Your task to perform on an android device: open app "Chime – Mobile Banking" (install if not already installed) Image 0: 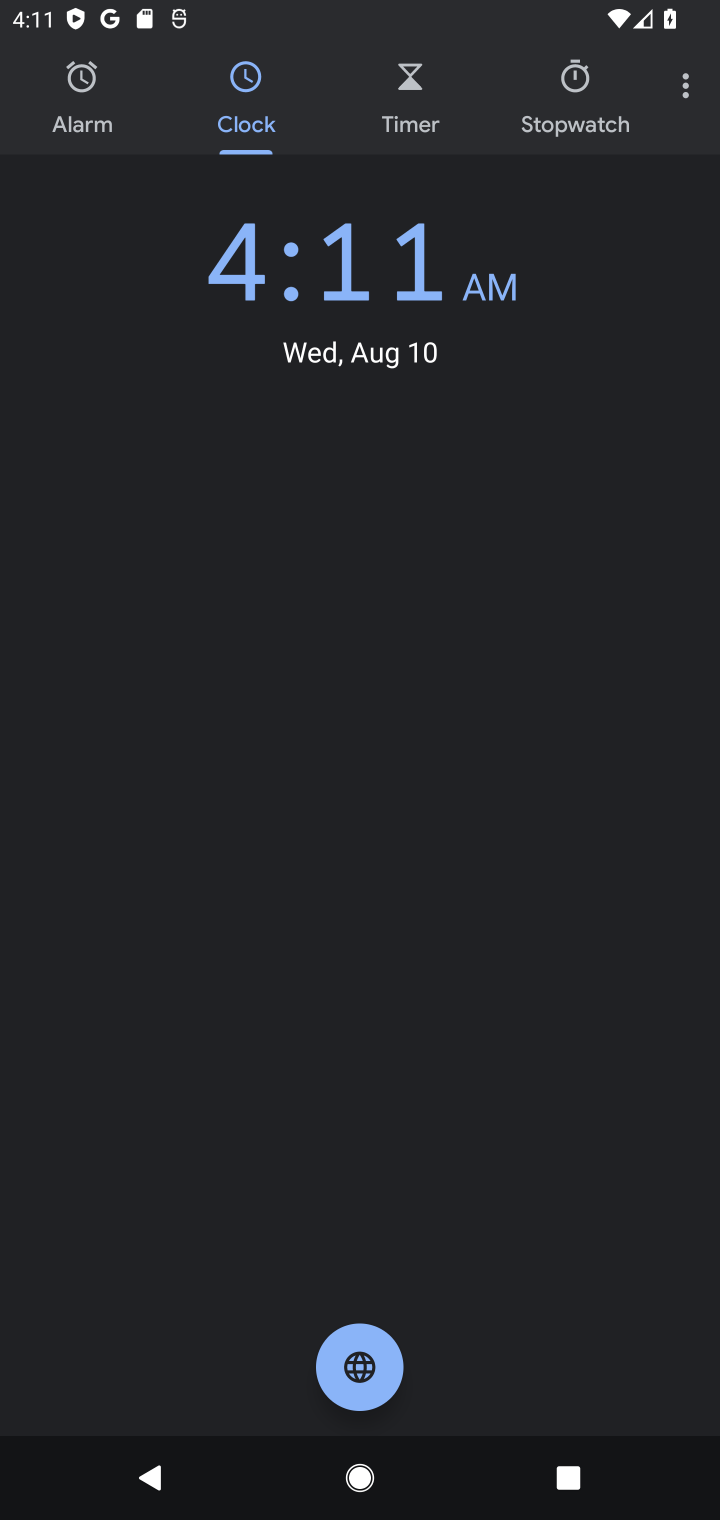
Step 0: press home button
Your task to perform on an android device: open app "Chime – Mobile Banking" (install if not already installed) Image 1: 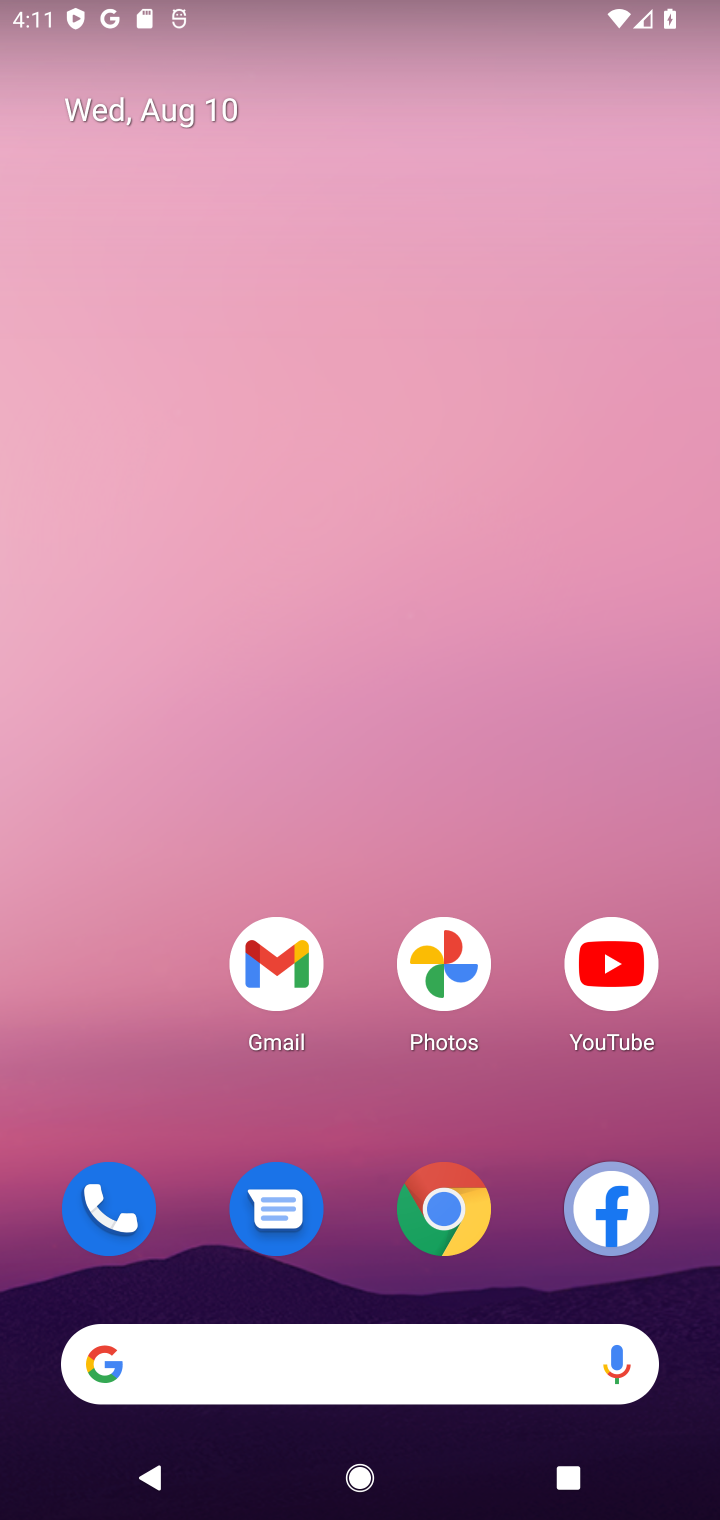
Step 1: drag from (313, 1307) to (304, 174)
Your task to perform on an android device: open app "Chime – Mobile Banking" (install if not already installed) Image 2: 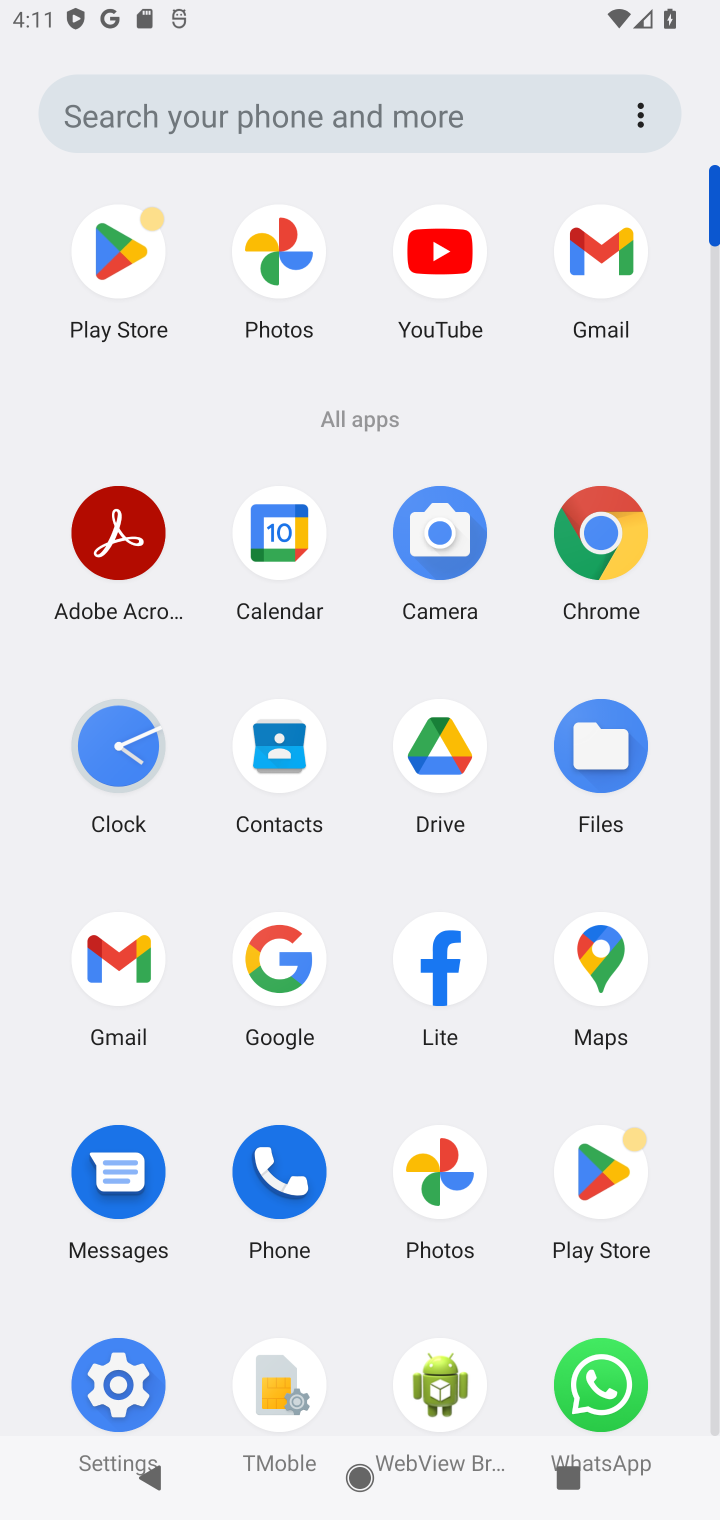
Step 2: click (233, 139)
Your task to perform on an android device: open app "Chime – Mobile Banking" (install if not already installed) Image 3: 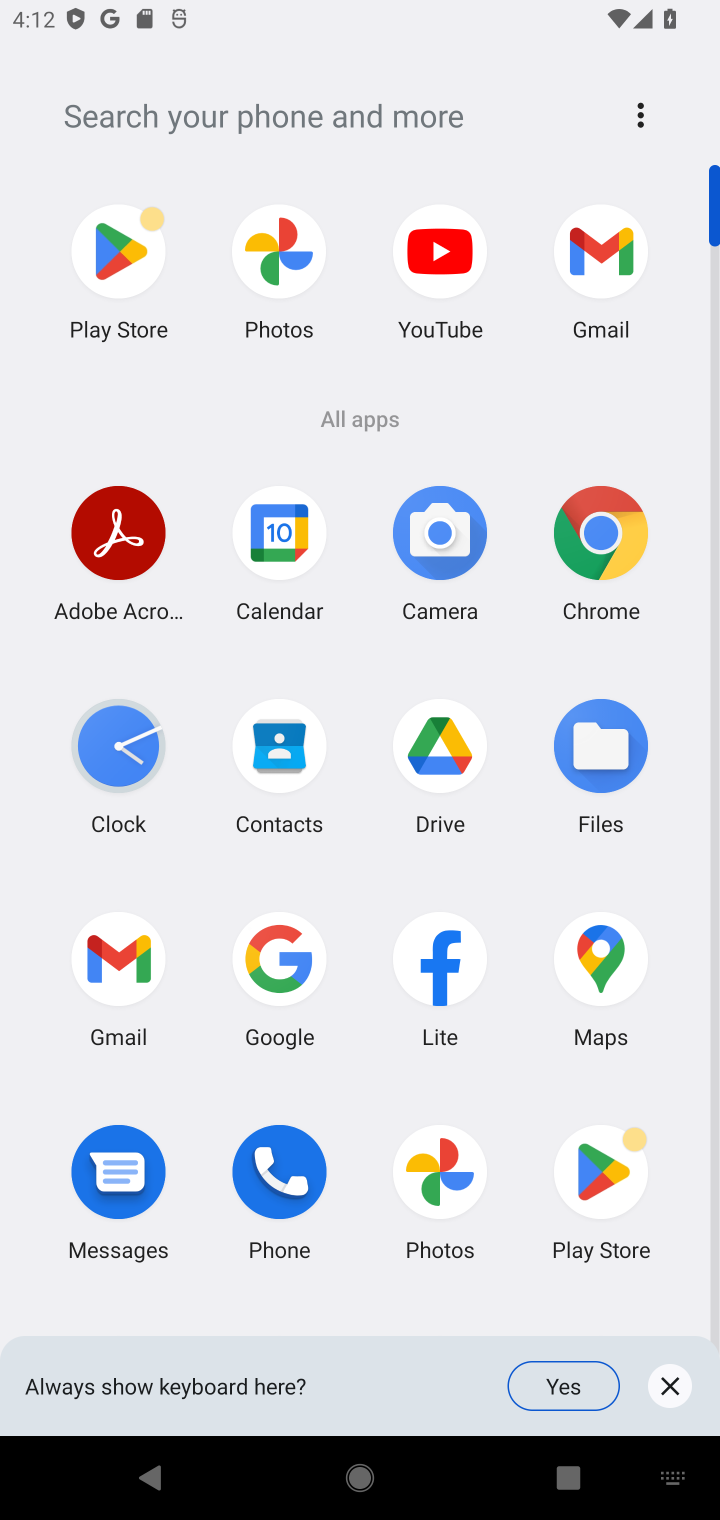
Step 3: click (111, 272)
Your task to perform on an android device: open app "Chime – Mobile Banking" (install if not already installed) Image 4: 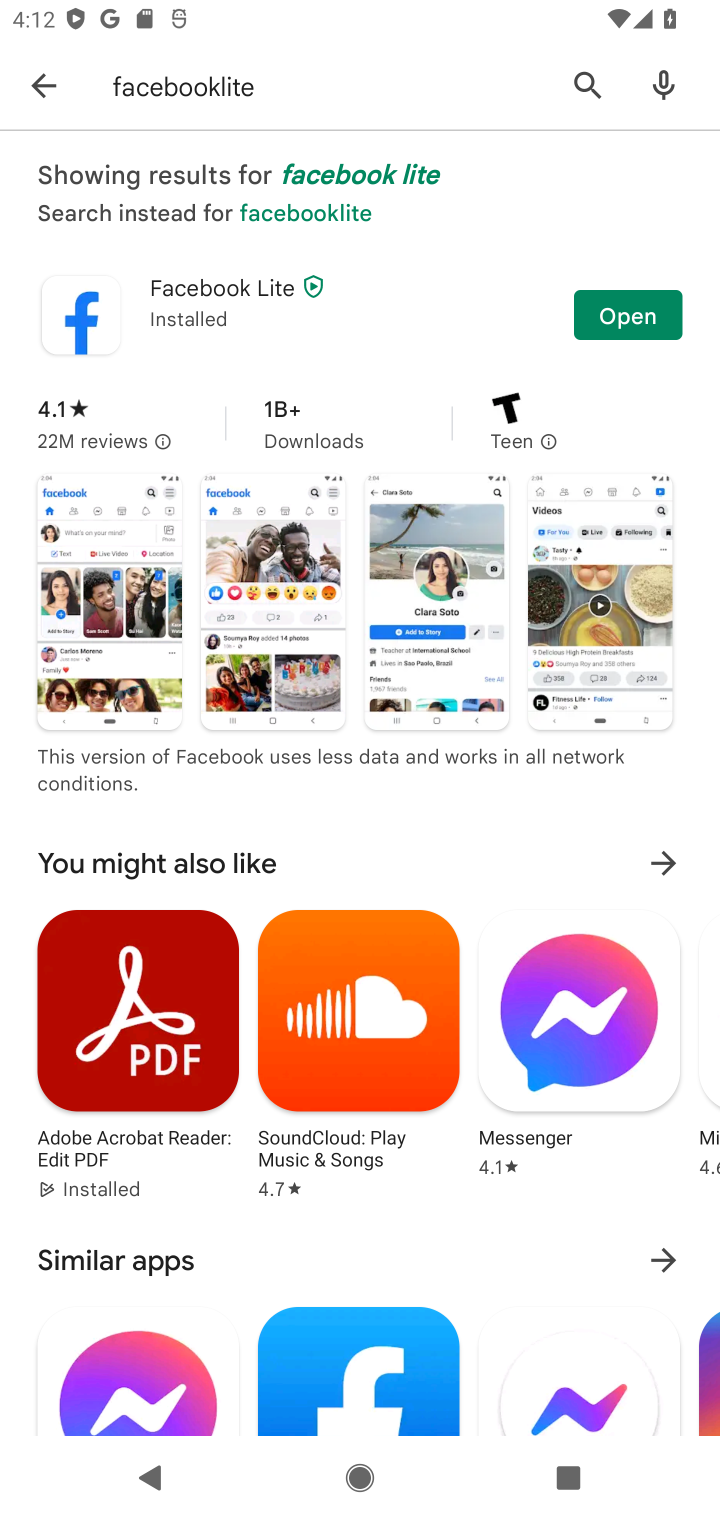
Step 4: click (578, 87)
Your task to perform on an android device: open app "Chime – Mobile Banking" (install if not already installed) Image 5: 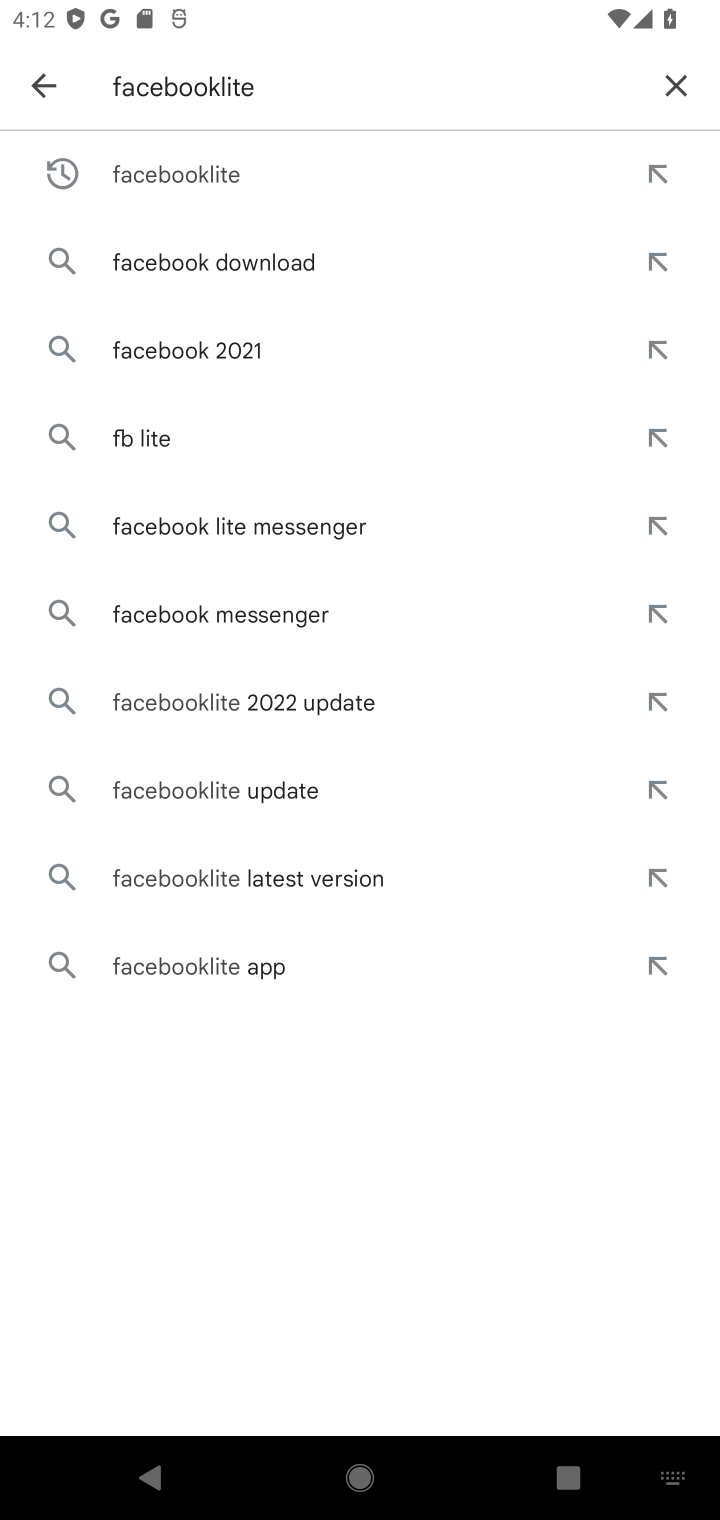
Step 5: click (656, 87)
Your task to perform on an android device: open app "Chime – Mobile Banking" (install if not already installed) Image 6: 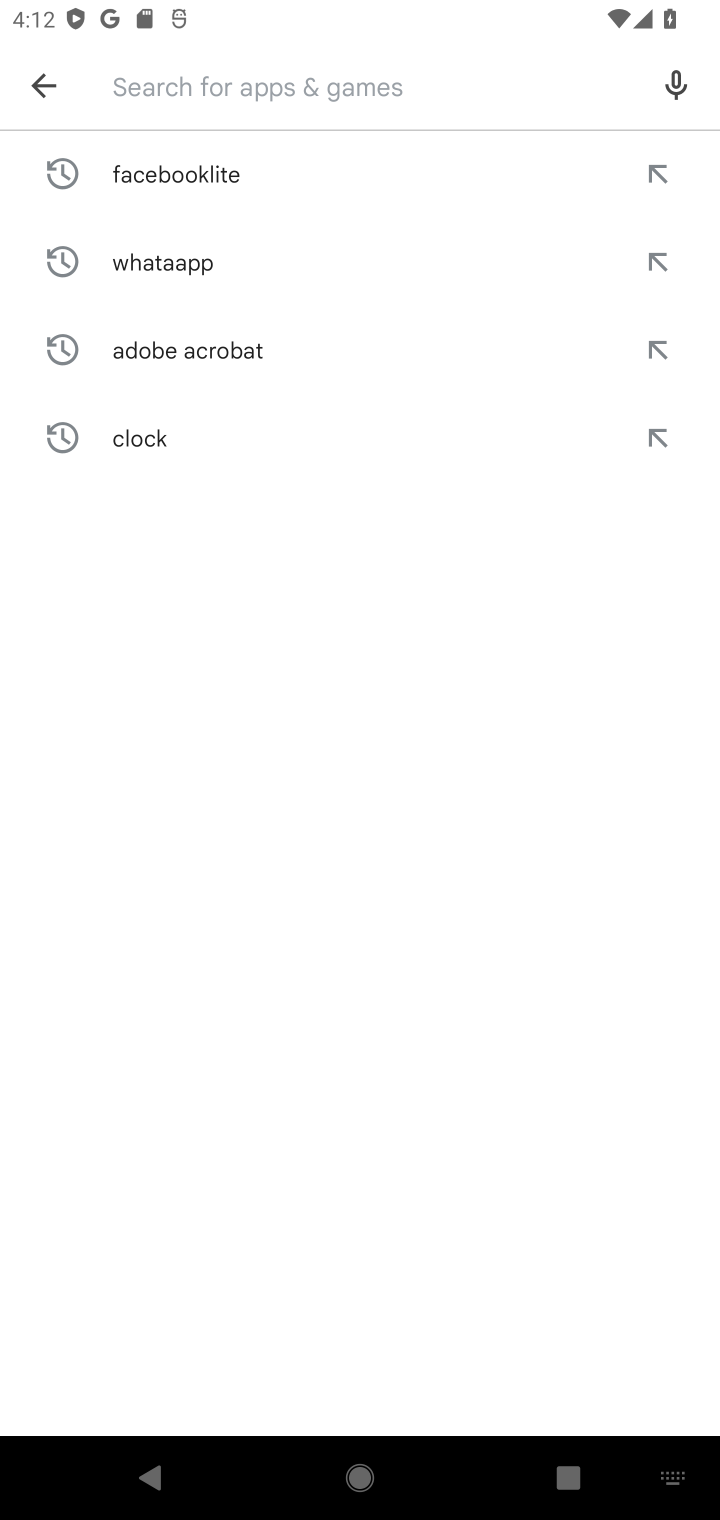
Step 6: type "chime"
Your task to perform on an android device: open app "Chime – Mobile Banking" (install if not already installed) Image 7: 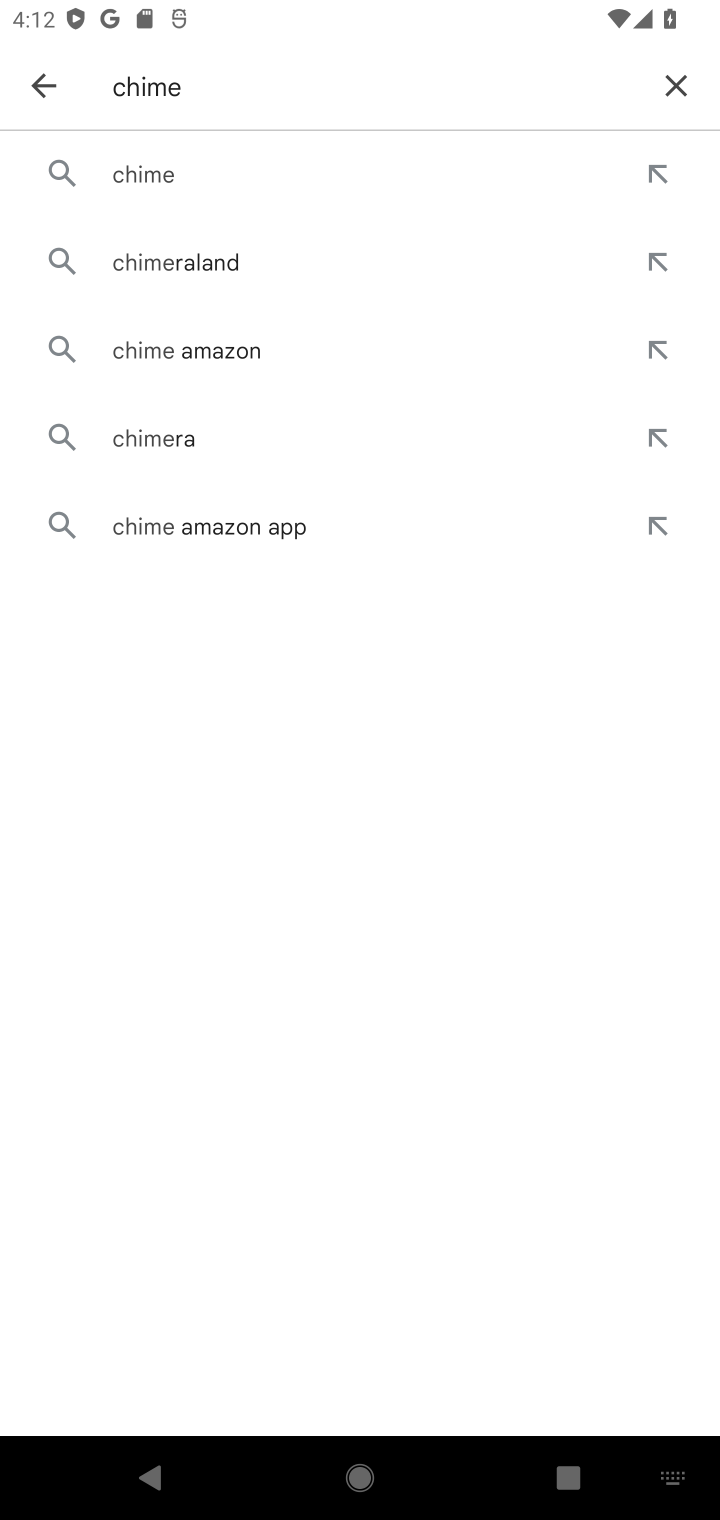
Step 7: click (259, 174)
Your task to perform on an android device: open app "Chime – Mobile Banking" (install if not already installed) Image 8: 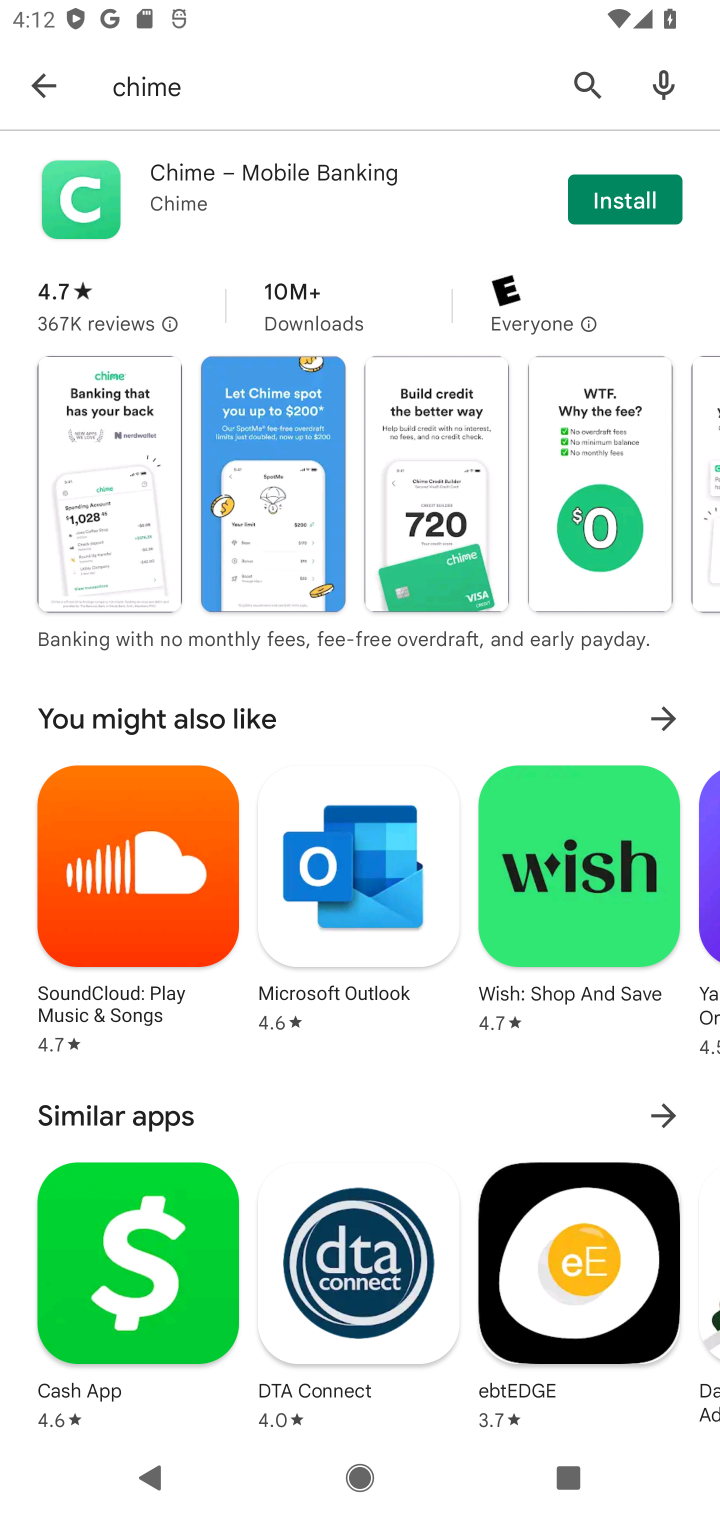
Step 8: click (622, 230)
Your task to perform on an android device: open app "Chime – Mobile Banking" (install if not already installed) Image 9: 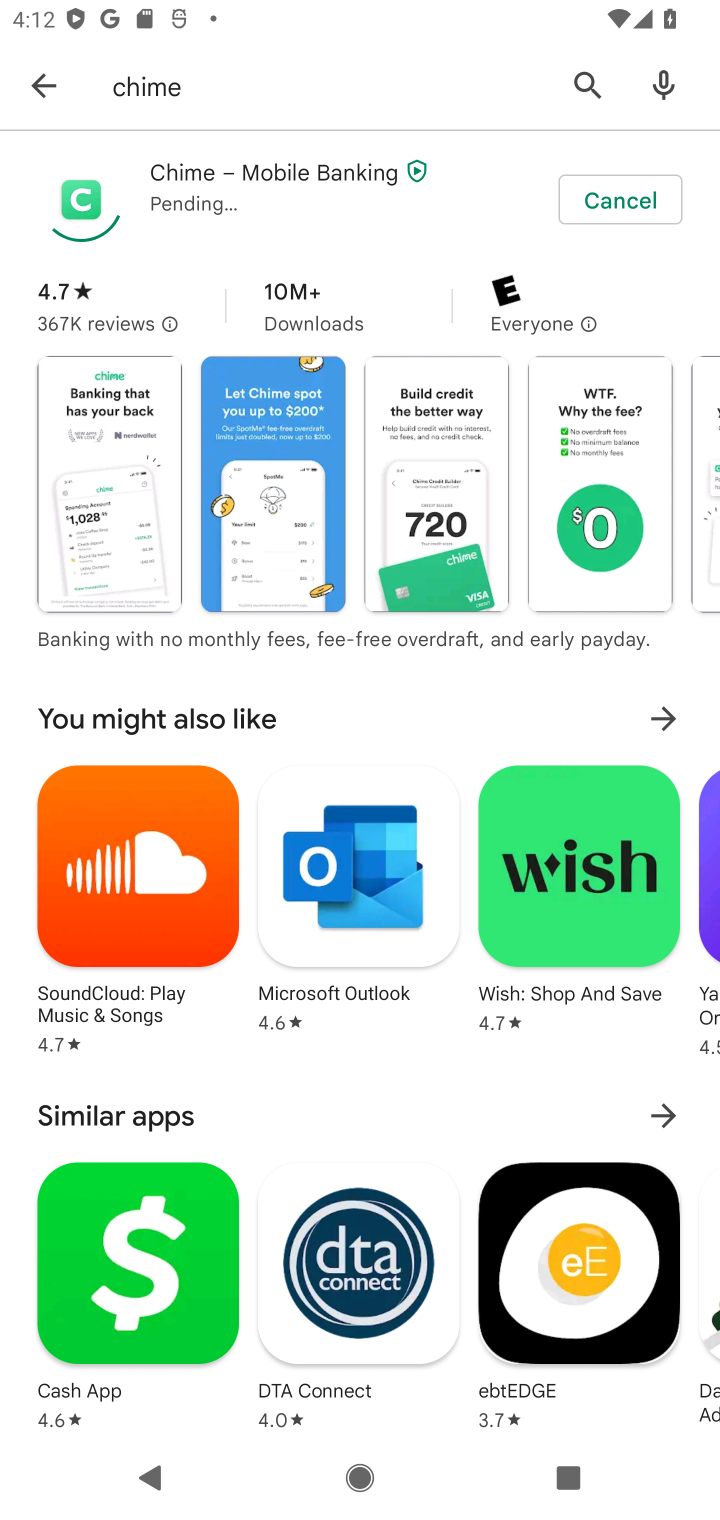
Step 9: task complete